Your task to perform on an android device: Go to Yahoo.com Image 0: 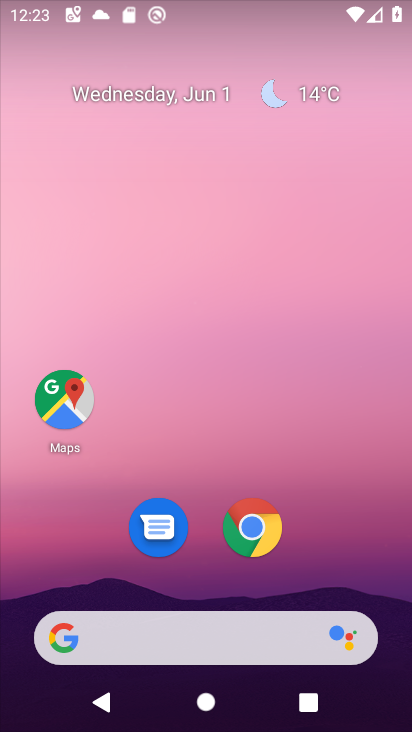
Step 0: click (250, 528)
Your task to perform on an android device: Go to Yahoo.com Image 1: 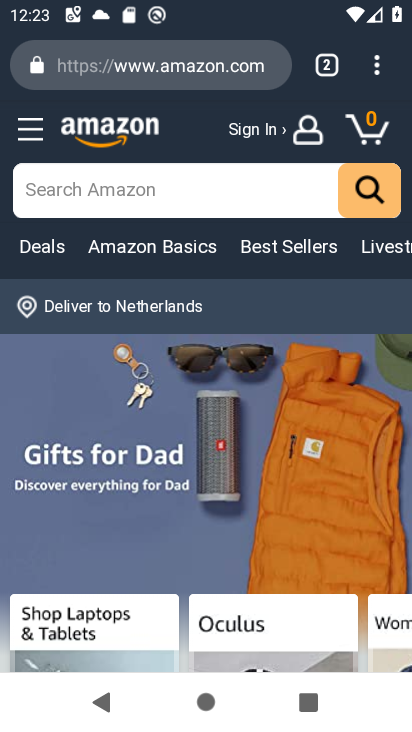
Step 1: click (126, 66)
Your task to perform on an android device: Go to Yahoo.com Image 2: 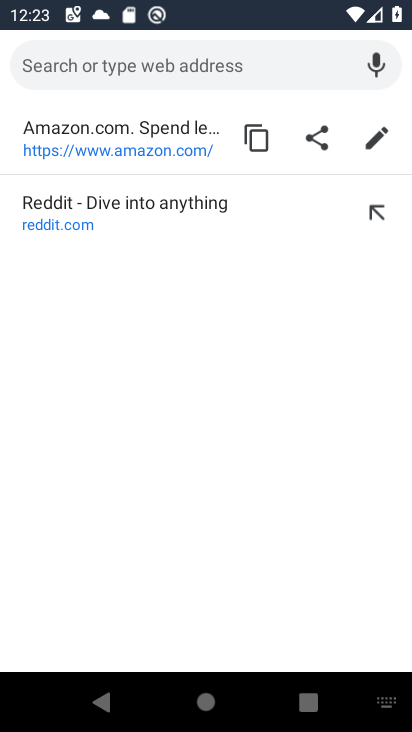
Step 2: type "yahoo.com"
Your task to perform on an android device: Go to Yahoo.com Image 3: 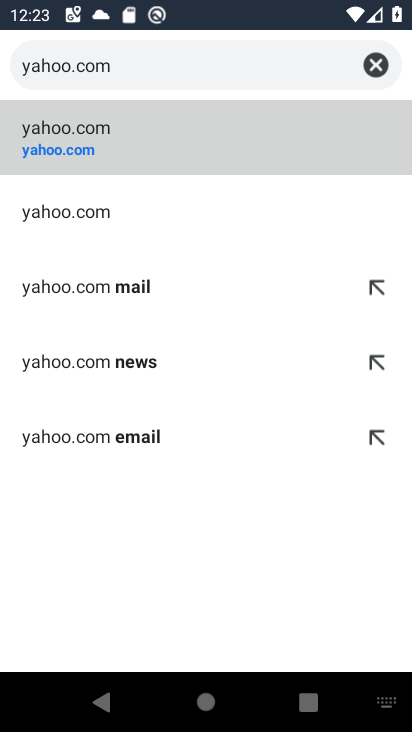
Step 3: click (63, 154)
Your task to perform on an android device: Go to Yahoo.com Image 4: 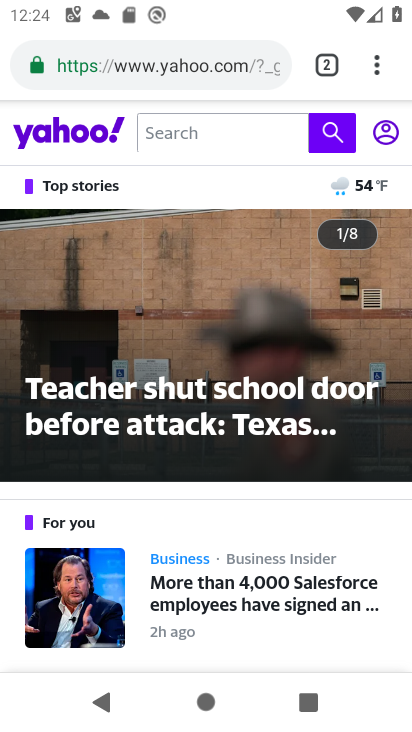
Step 4: task complete